Your task to perform on an android device: open wifi settings Image 0: 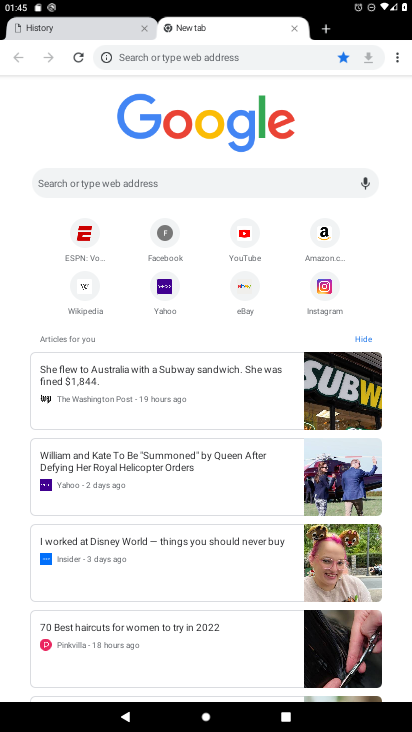
Step 0: press home button
Your task to perform on an android device: open wifi settings Image 1: 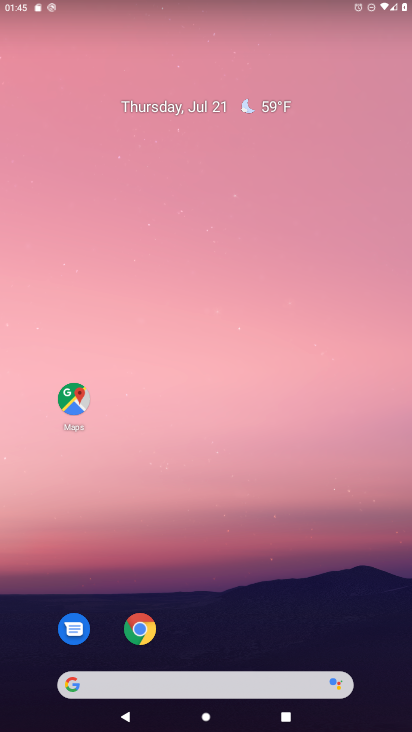
Step 1: drag from (374, 658) to (379, 229)
Your task to perform on an android device: open wifi settings Image 2: 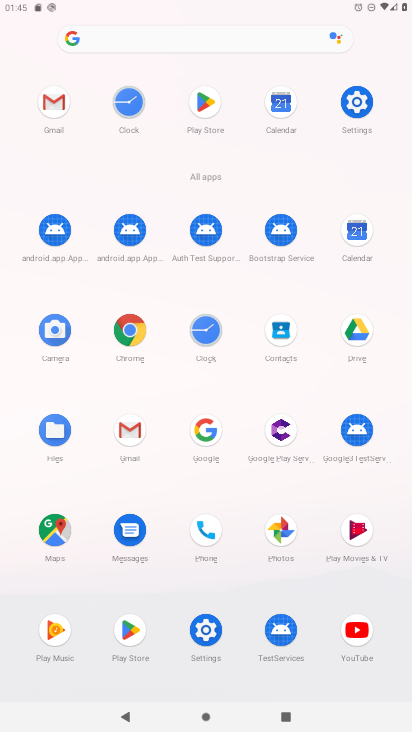
Step 2: click (207, 631)
Your task to perform on an android device: open wifi settings Image 3: 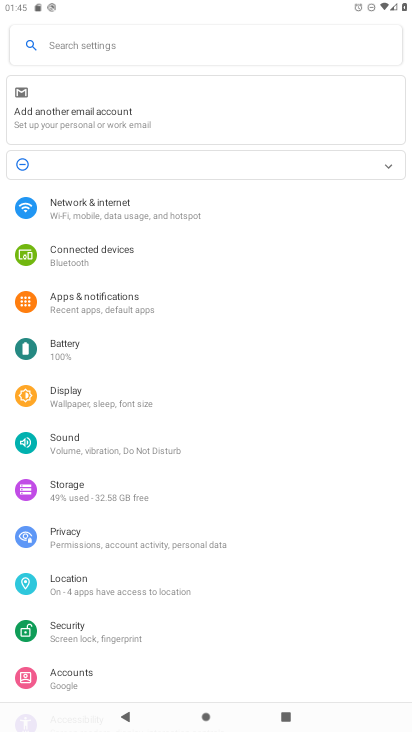
Step 3: click (72, 202)
Your task to perform on an android device: open wifi settings Image 4: 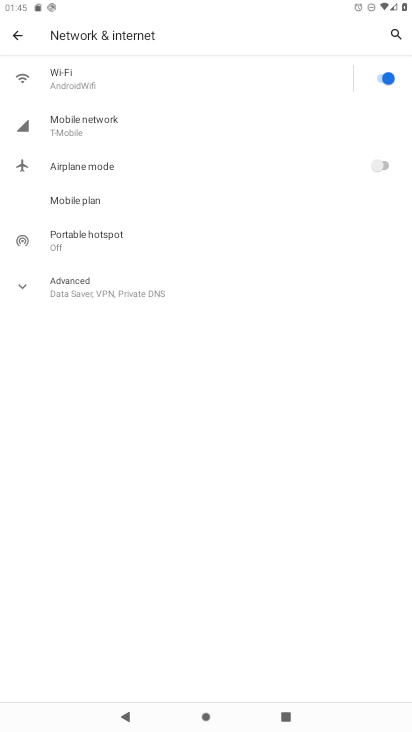
Step 4: click (58, 75)
Your task to perform on an android device: open wifi settings Image 5: 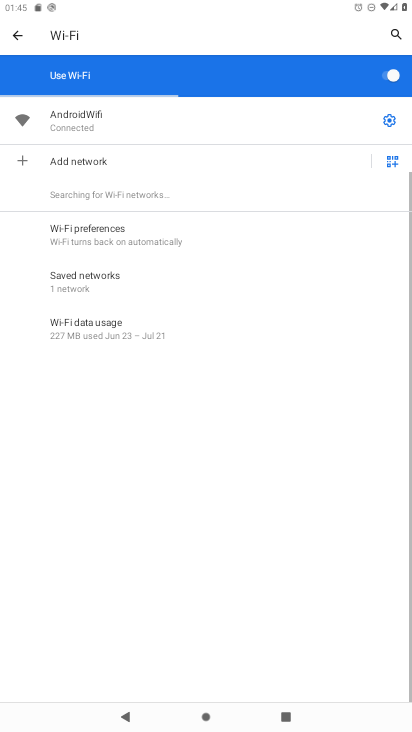
Step 5: click (388, 121)
Your task to perform on an android device: open wifi settings Image 6: 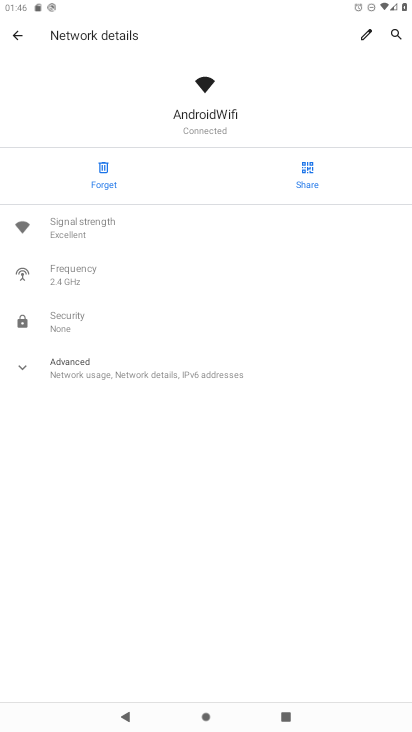
Step 6: task complete